Your task to perform on an android device: Open the calendar app, open the side menu, and click the "Day" option Image 0: 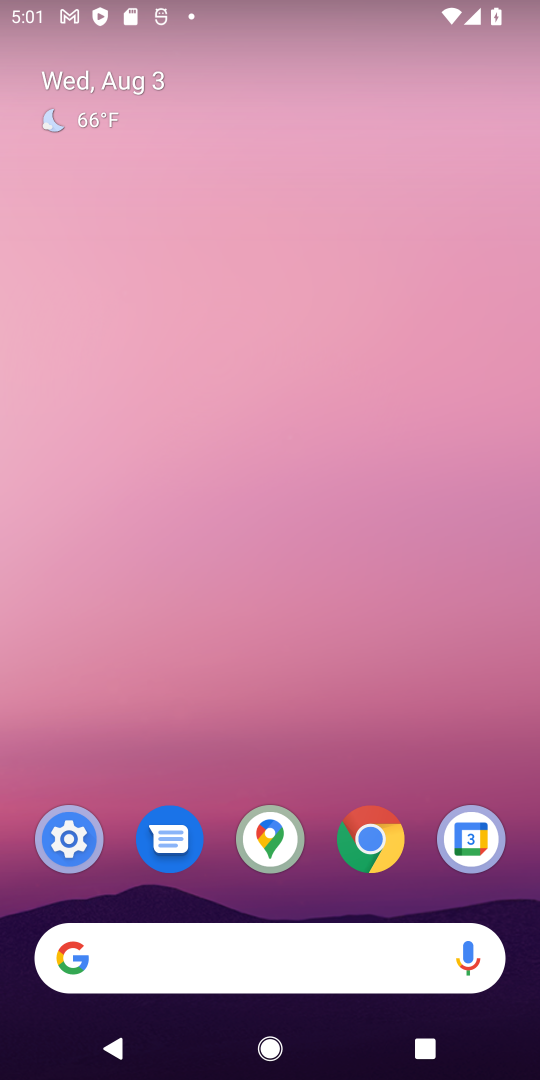
Step 0: click (480, 840)
Your task to perform on an android device: Open the calendar app, open the side menu, and click the "Day" option Image 1: 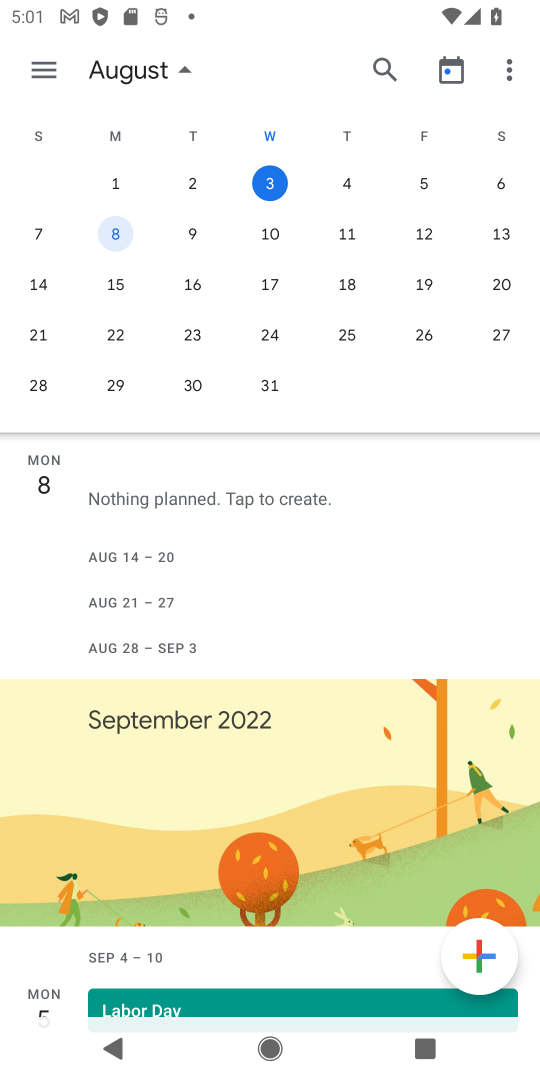
Step 1: click (34, 87)
Your task to perform on an android device: Open the calendar app, open the side menu, and click the "Day" option Image 2: 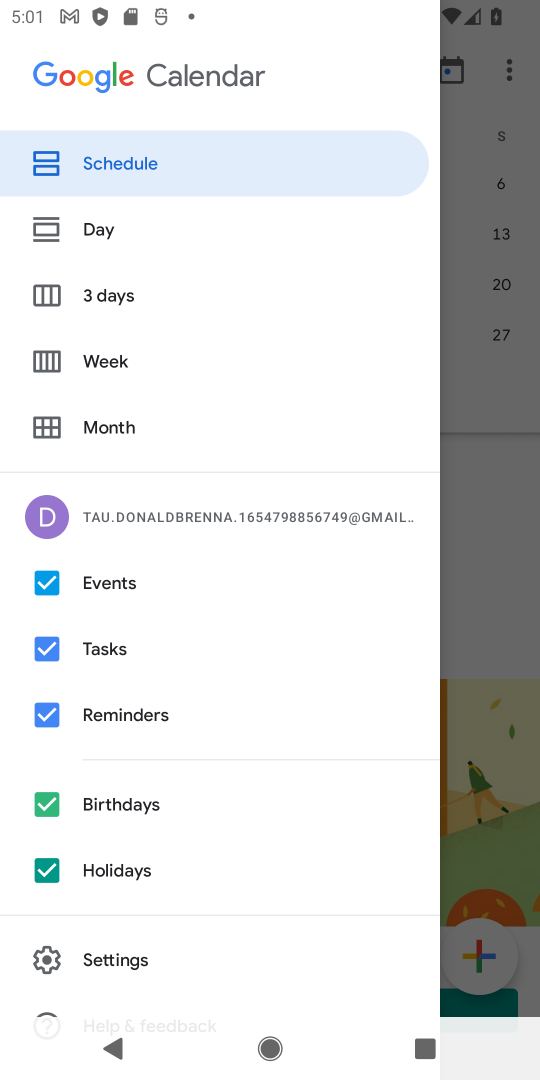
Step 2: click (146, 238)
Your task to perform on an android device: Open the calendar app, open the side menu, and click the "Day" option Image 3: 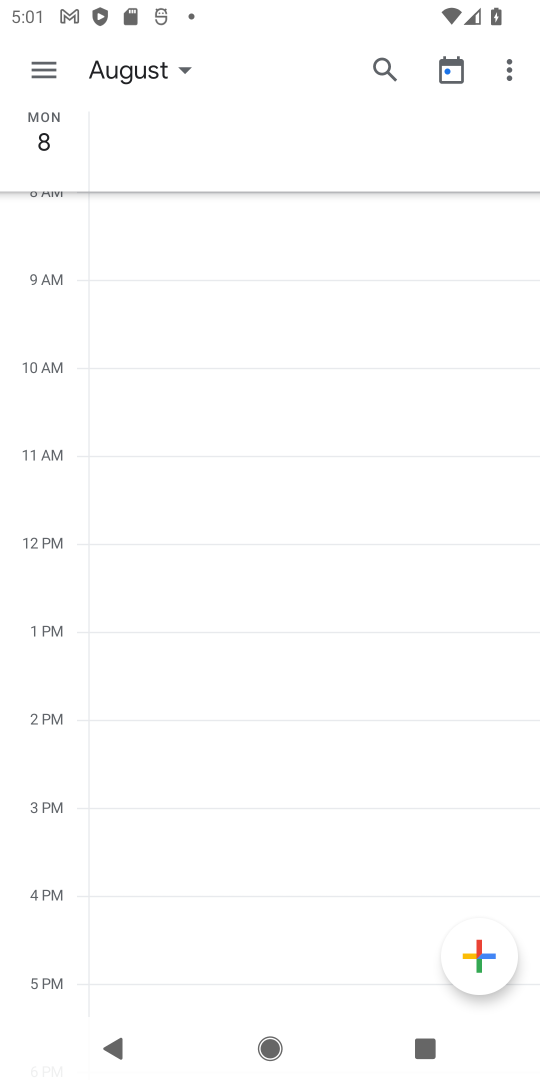
Step 3: task complete